Your task to perform on an android device: turn on showing notifications on the lock screen Image 0: 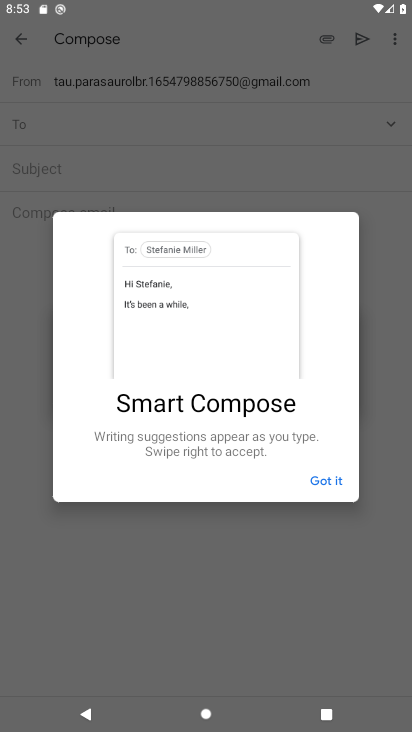
Step 0: press back button
Your task to perform on an android device: turn on showing notifications on the lock screen Image 1: 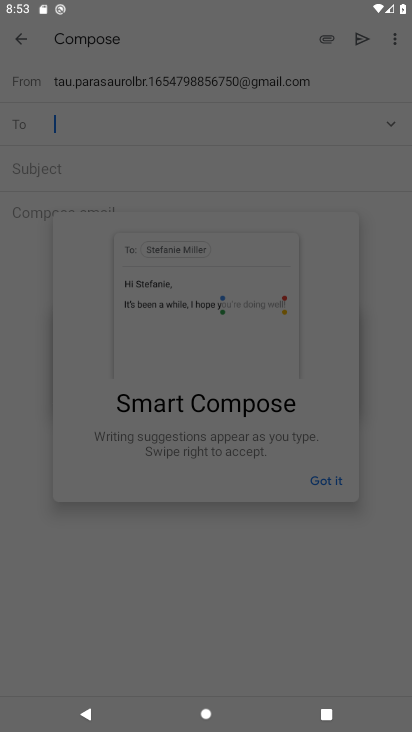
Step 1: press home button
Your task to perform on an android device: turn on showing notifications on the lock screen Image 2: 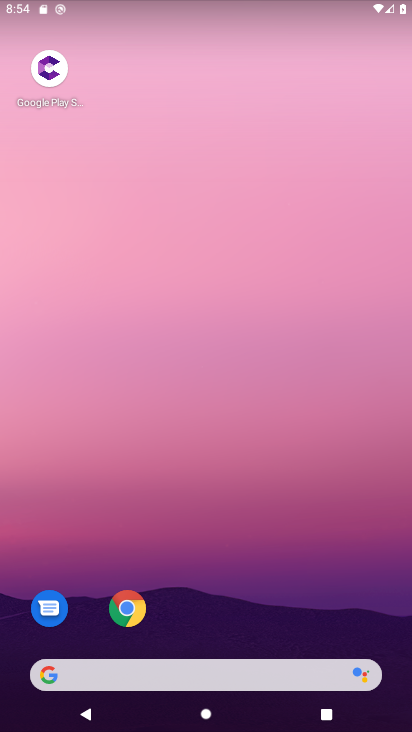
Step 2: drag from (181, 606) to (180, 149)
Your task to perform on an android device: turn on showing notifications on the lock screen Image 3: 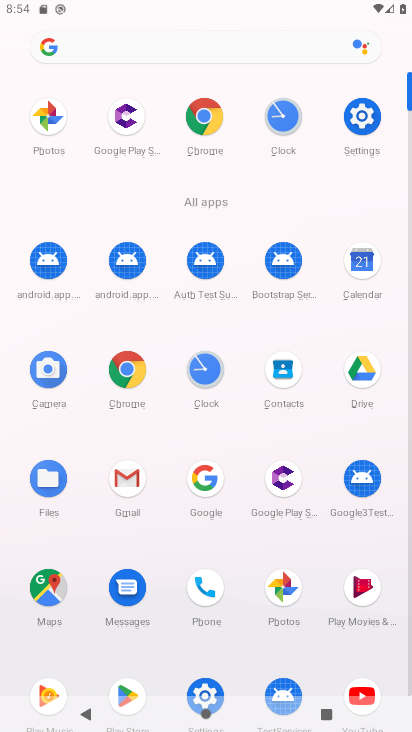
Step 3: click (367, 107)
Your task to perform on an android device: turn on showing notifications on the lock screen Image 4: 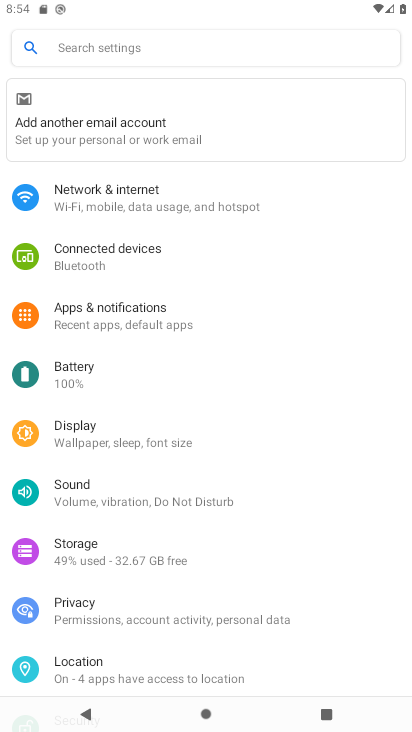
Step 4: click (139, 311)
Your task to perform on an android device: turn on showing notifications on the lock screen Image 5: 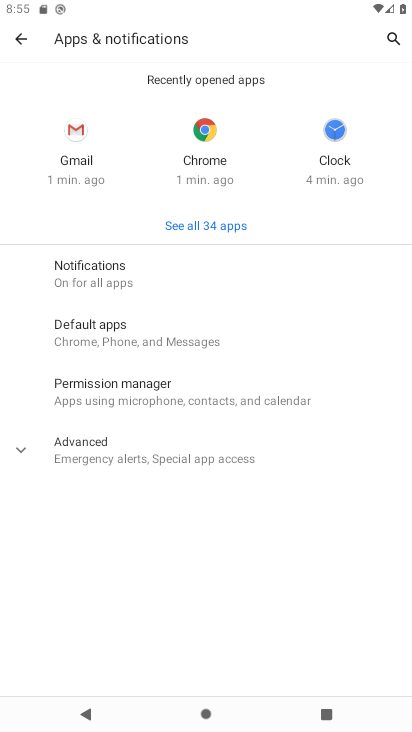
Step 5: click (128, 266)
Your task to perform on an android device: turn on showing notifications on the lock screen Image 6: 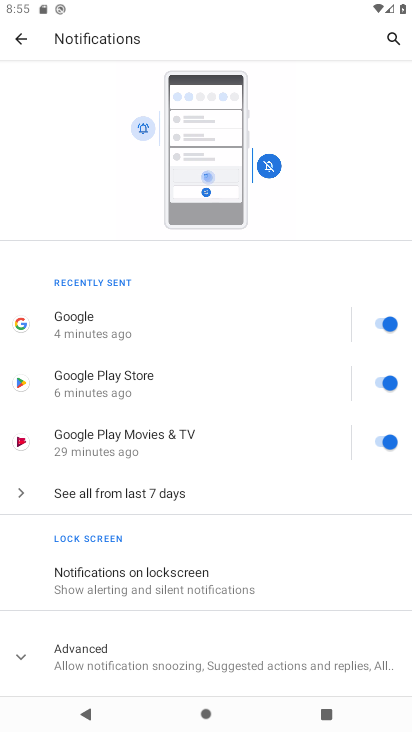
Step 6: click (134, 580)
Your task to perform on an android device: turn on showing notifications on the lock screen Image 7: 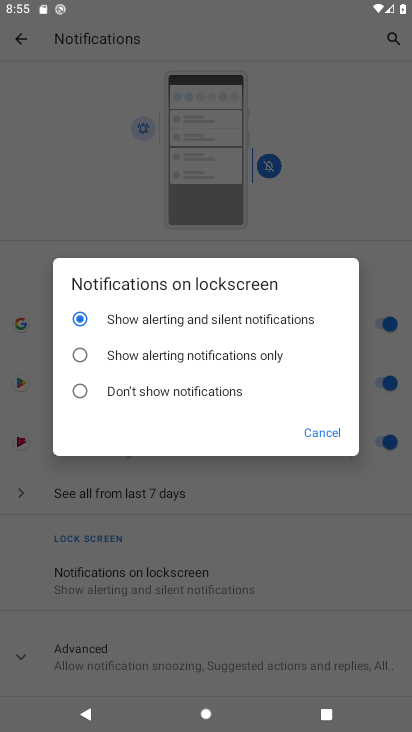
Step 7: click (88, 390)
Your task to perform on an android device: turn on showing notifications on the lock screen Image 8: 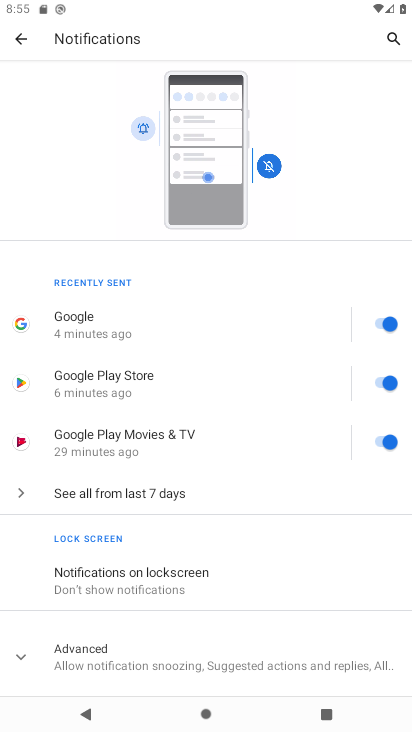
Step 8: click (140, 582)
Your task to perform on an android device: turn on showing notifications on the lock screen Image 9: 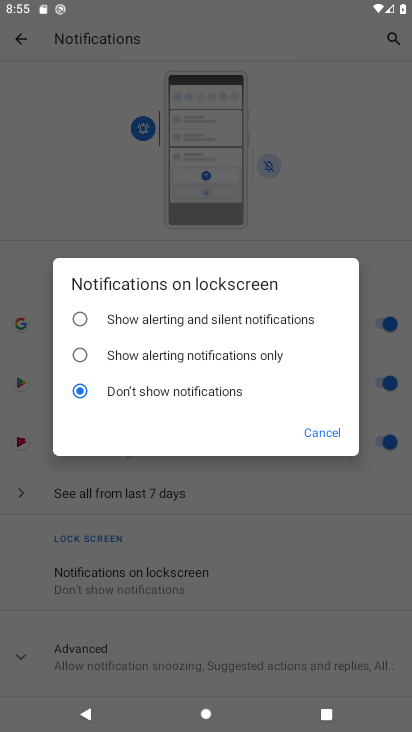
Step 9: click (81, 312)
Your task to perform on an android device: turn on showing notifications on the lock screen Image 10: 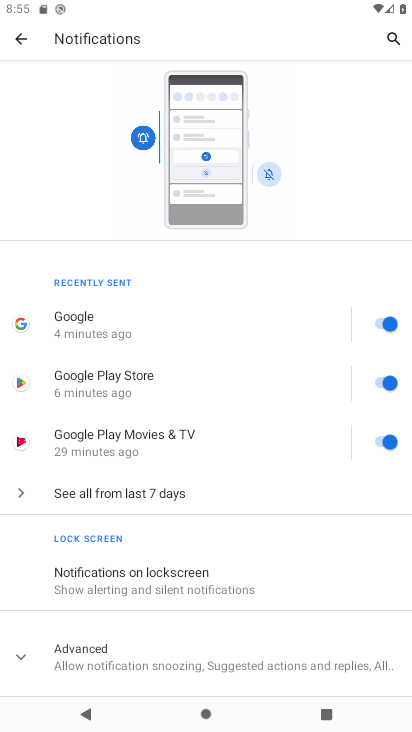
Step 10: task complete